Your task to perform on an android device: add a label to a message in the gmail app Image 0: 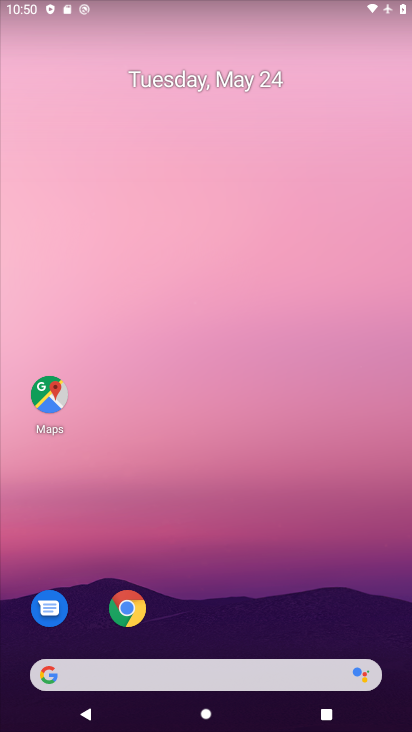
Step 0: drag from (378, 634) to (340, 153)
Your task to perform on an android device: add a label to a message in the gmail app Image 1: 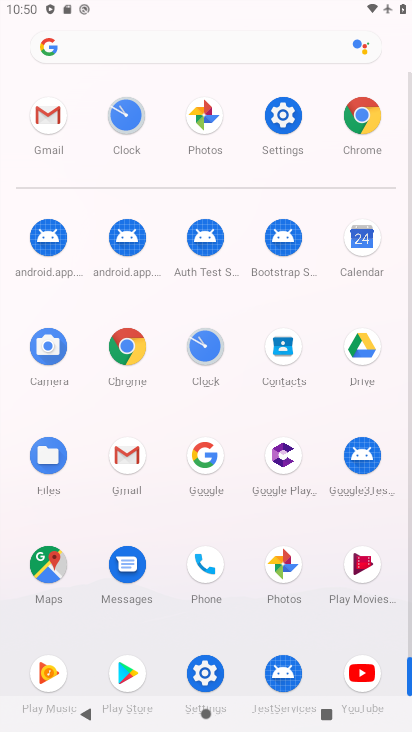
Step 1: click (123, 455)
Your task to perform on an android device: add a label to a message in the gmail app Image 2: 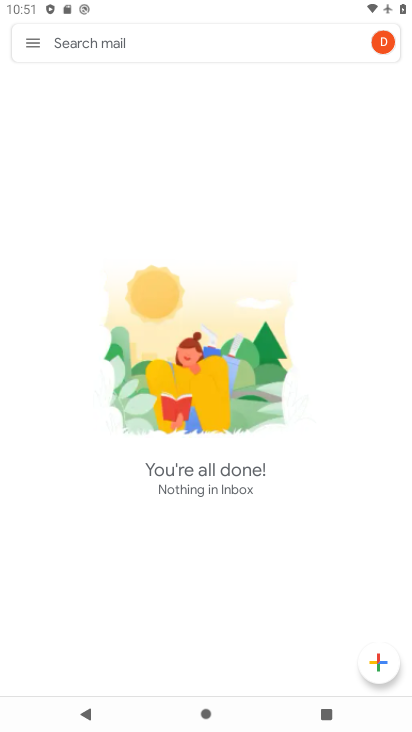
Step 2: click (32, 46)
Your task to perform on an android device: add a label to a message in the gmail app Image 3: 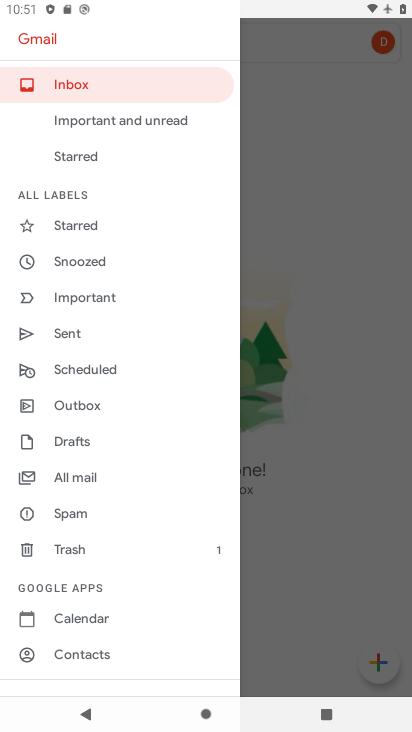
Step 3: drag from (145, 633) to (174, 268)
Your task to perform on an android device: add a label to a message in the gmail app Image 4: 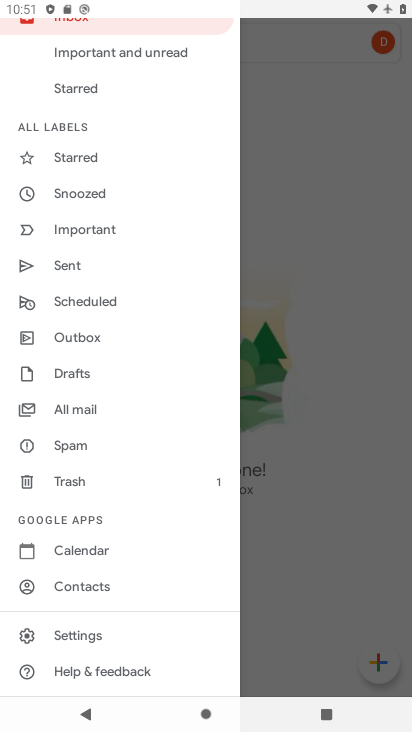
Step 4: click (71, 408)
Your task to perform on an android device: add a label to a message in the gmail app Image 5: 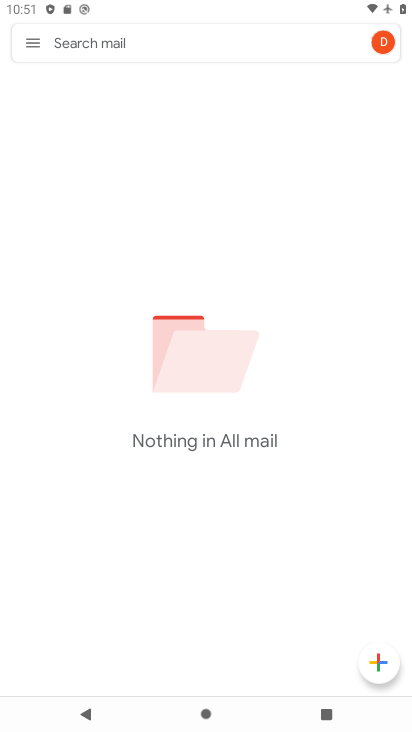
Step 5: task complete